Your task to perform on an android device: When is my next appointment? Image 0: 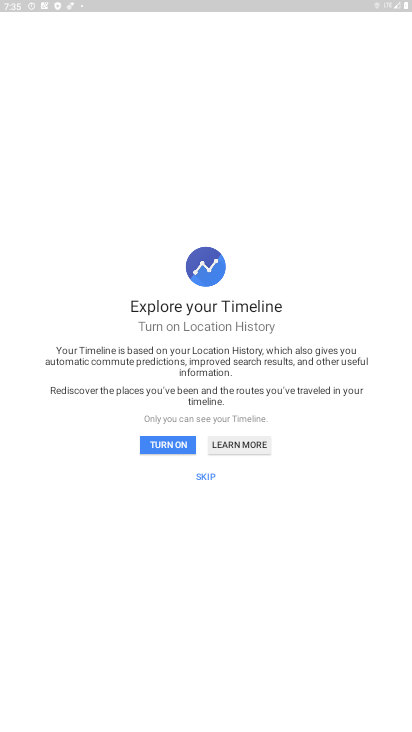
Step 0: press home button
Your task to perform on an android device: When is my next appointment? Image 1: 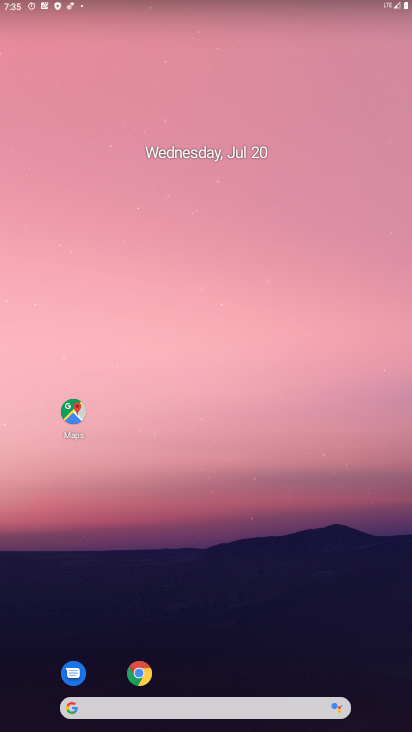
Step 1: drag from (356, 637) to (211, 30)
Your task to perform on an android device: When is my next appointment? Image 2: 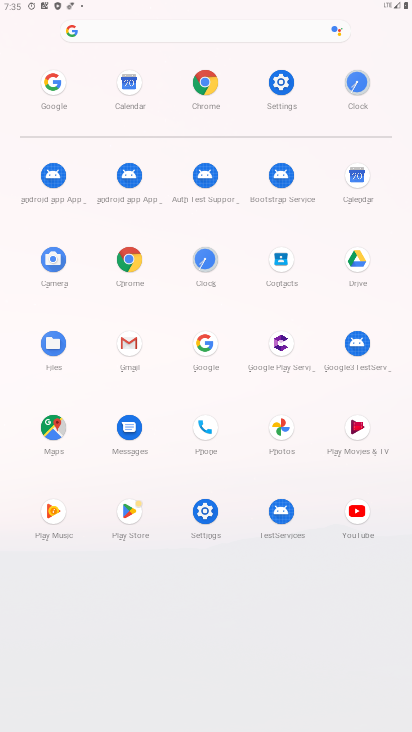
Step 2: click (356, 183)
Your task to perform on an android device: When is my next appointment? Image 3: 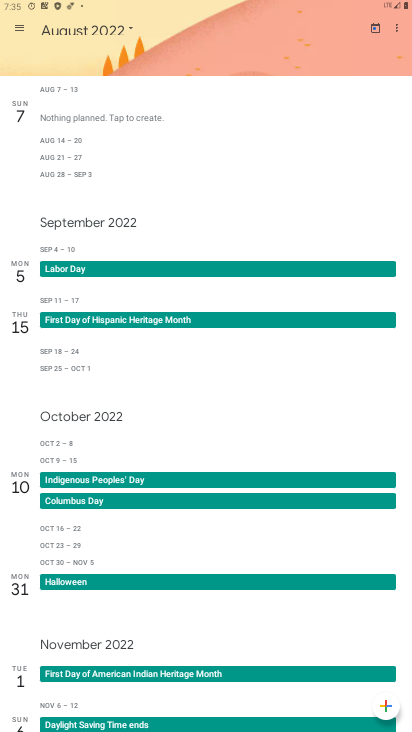
Step 3: task complete